Your task to perform on an android device: Open my contact list Image 0: 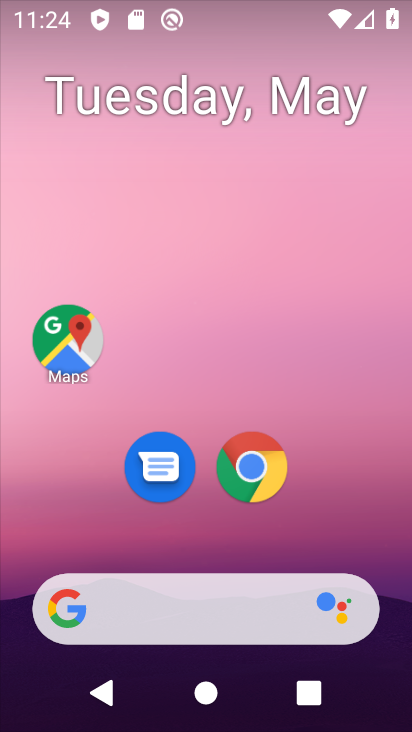
Step 0: drag from (223, 562) to (133, 122)
Your task to perform on an android device: Open my contact list Image 1: 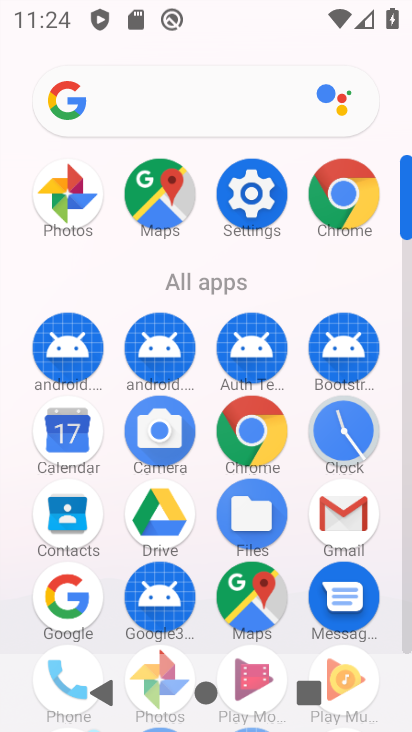
Step 1: click (58, 657)
Your task to perform on an android device: Open my contact list Image 2: 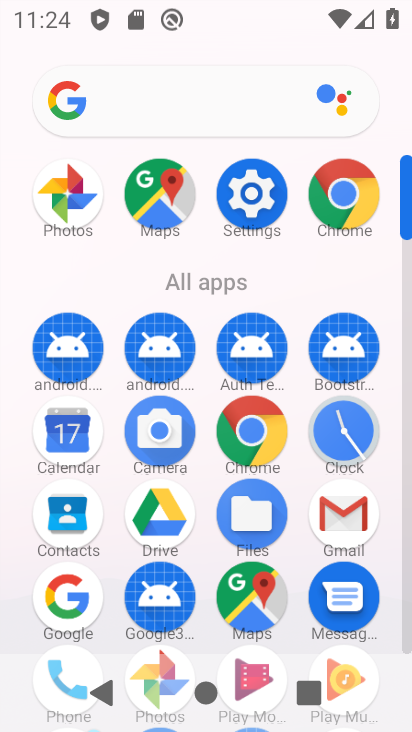
Step 2: click (67, 645)
Your task to perform on an android device: Open my contact list Image 3: 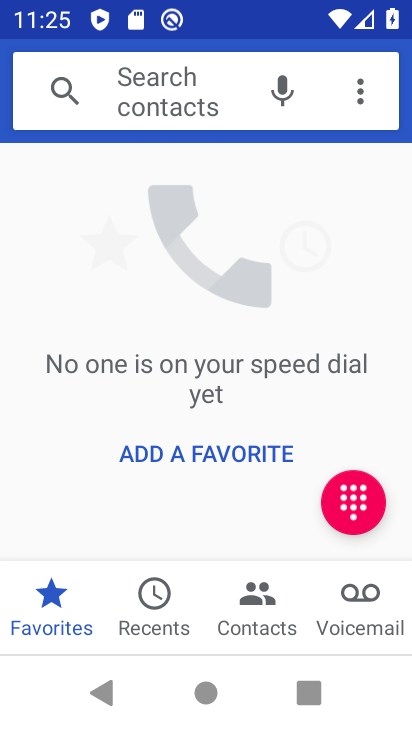
Step 3: click (285, 606)
Your task to perform on an android device: Open my contact list Image 4: 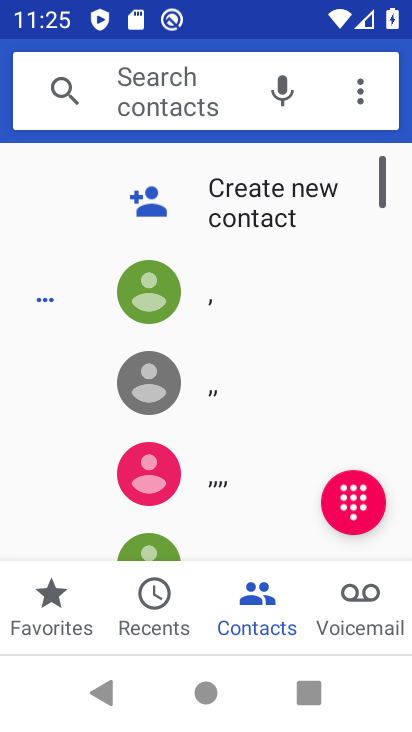
Step 4: task complete